Your task to perform on an android device: Go to sound settings Image 0: 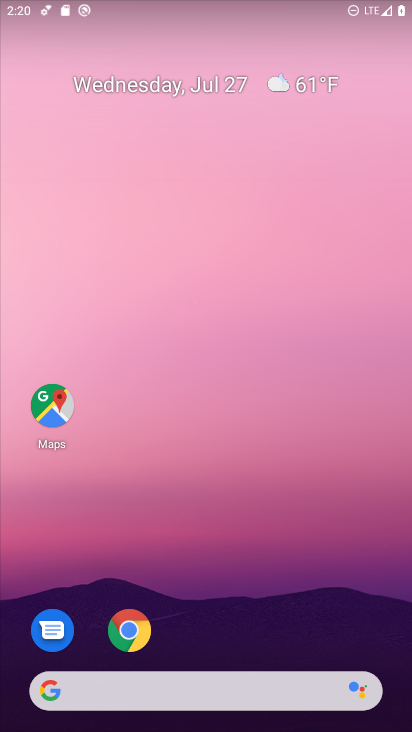
Step 0: drag from (216, 606) to (216, 83)
Your task to perform on an android device: Go to sound settings Image 1: 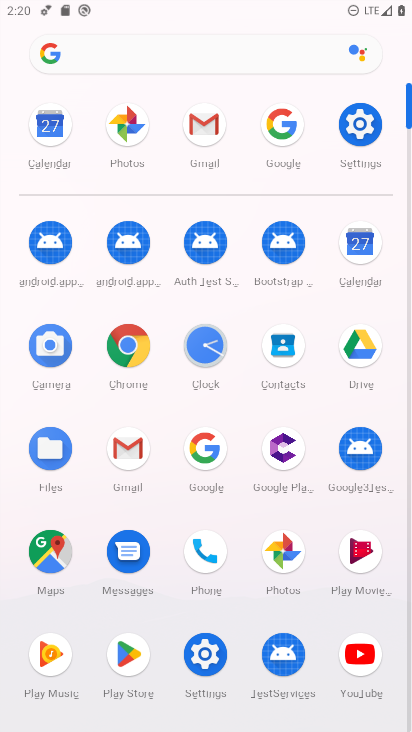
Step 1: click (367, 114)
Your task to perform on an android device: Go to sound settings Image 2: 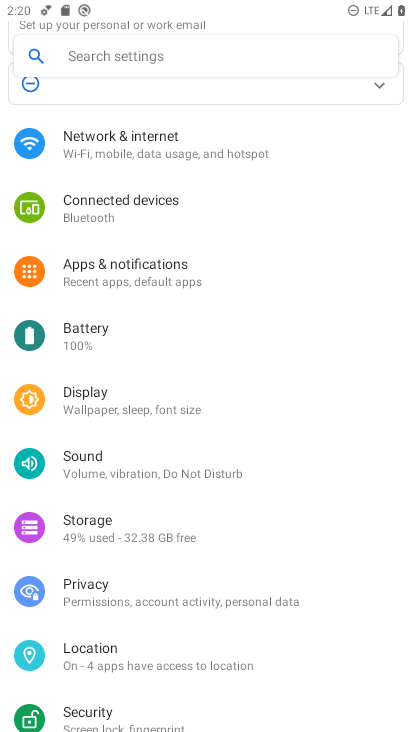
Step 2: click (147, 468)
Your task to perform on an android device: Go to sound settings Image 3: 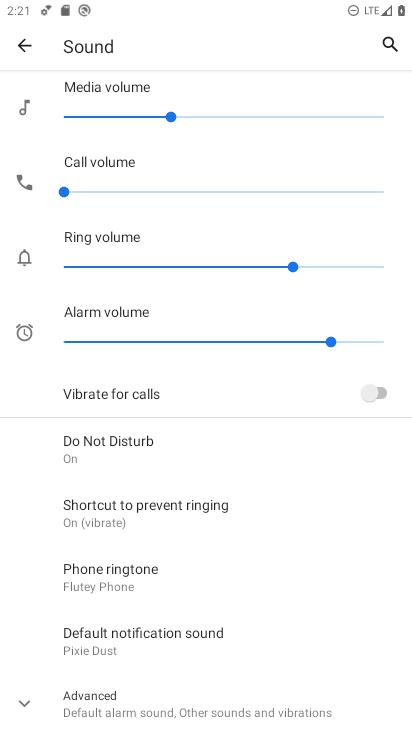
Step 3: task complete